Your task to perform on an android device: Show me productivity apps on the Play Store Image 0: 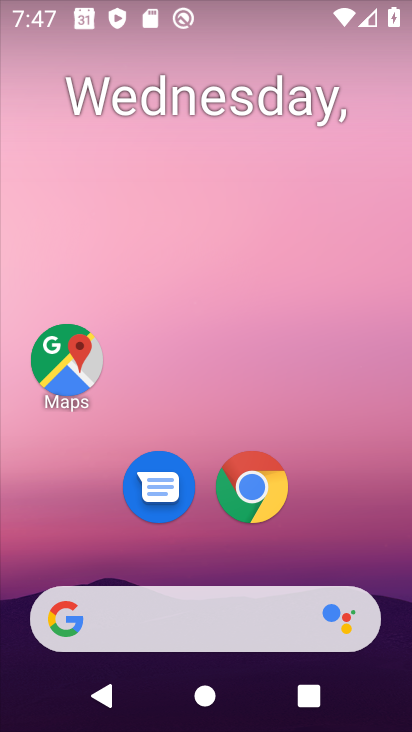
Step 0: drag from (360, 585) to (342, 32)
Your task to perform on an android device: Show me productivity apps on the Play Store Image 1: 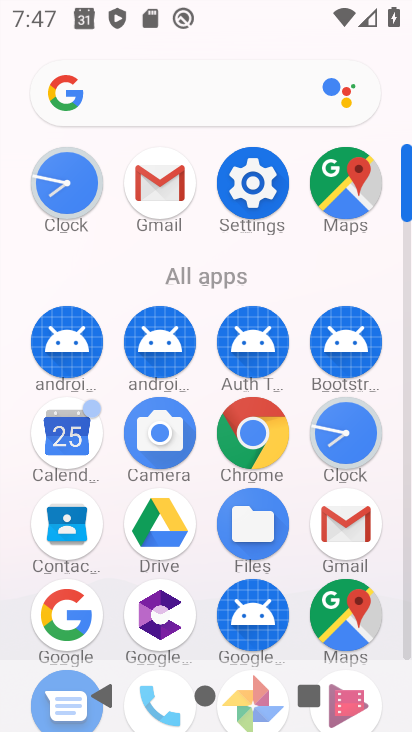
Step 1: drag from (402, 490) to (399, 456)
Your task to perform on an android device: Show me productivity apps on the Play Store Image 2: 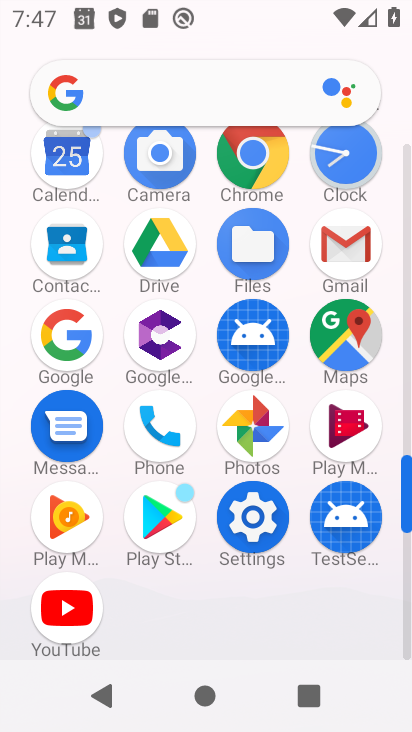
Step 2: click (158, 520)
Your task to perform on an android device: Show me productivity apps on the Play Store Image 3: 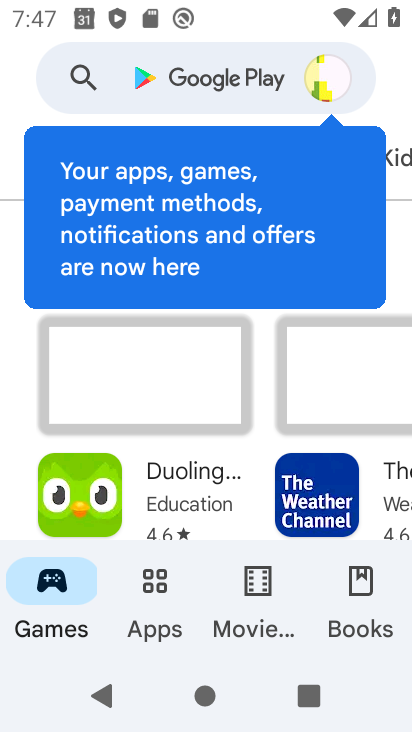
Step 3: click (157, 600)
Your task to perform on an android device: Show me productivity apps on the Play Store Image 4: 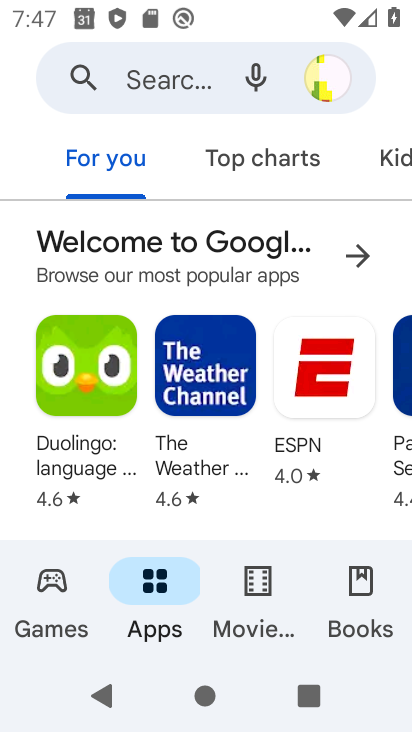
Step 4: drag from (293, 152) to (5, 200)
Your task to perform on an android device: Show me productivity apps on the Play Store Image 5: 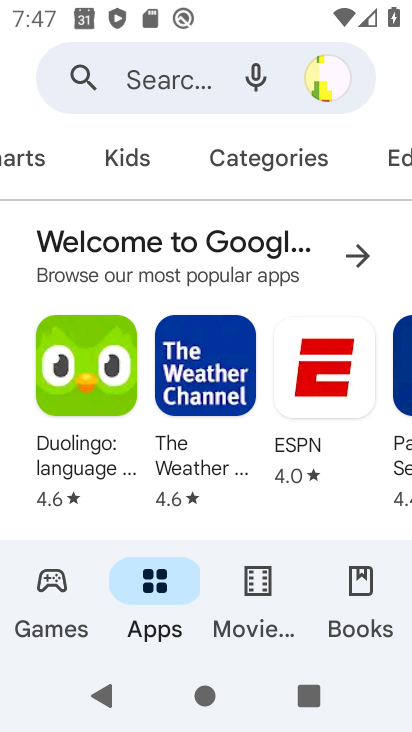
Step 5: click (256, 166)
Your task to perform on an android device: Show me productivity apps on the Play Store Image 6: 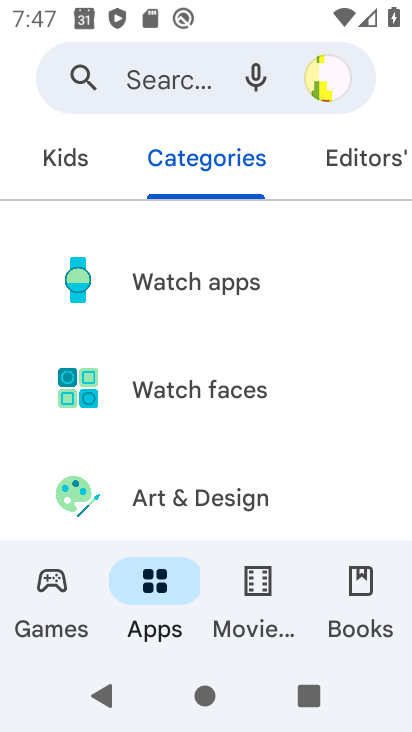
Step 6: drag from (285, 481) to (272, 9)
Your task to perform on an android device: Show me productivity apps on the Play Store Image 7: 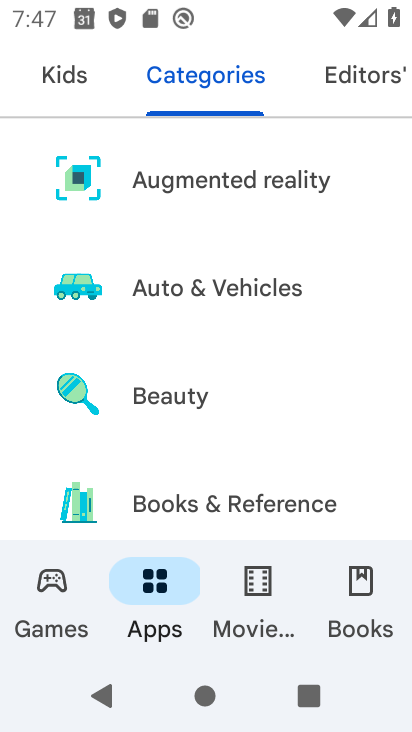
Step 7: drag from (307, 382) to (266, 10)
Your task to perform on an android device: Show me productivity apps on the Play Store Image 8: 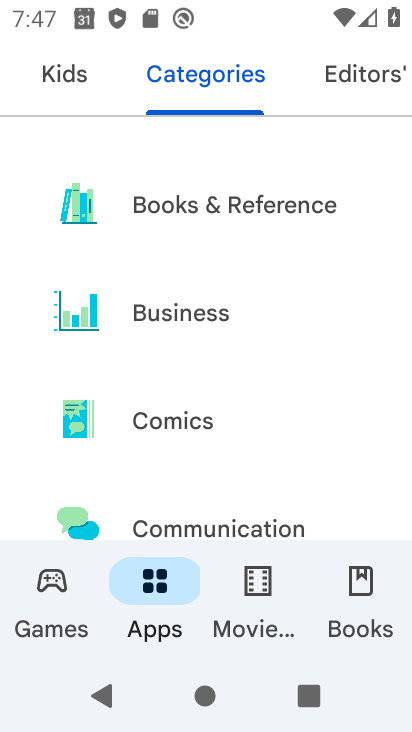
Step 8: drag from (268, 387) to (235, 11)
Your task to perform on an android device: Show me productivity apps on the Play Store Image 9: 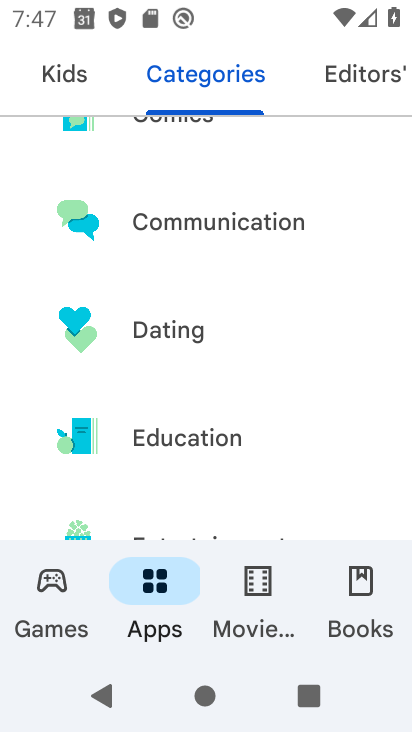
Step 9: drag from (301, 400) to (236, 1)
Your task to perform on an android device: Show me productivity apps on the Play Store Image 10: 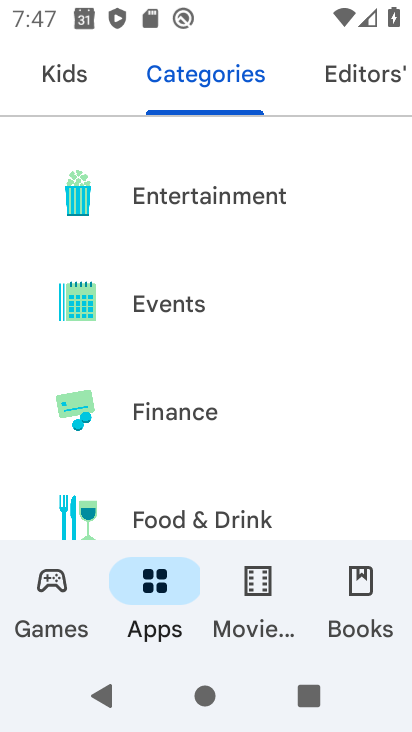
Step 10: drag from (235, 407) to (237, 34)
Your task to perform on an android device: Show me productivity apps on the Play Store Image 11: 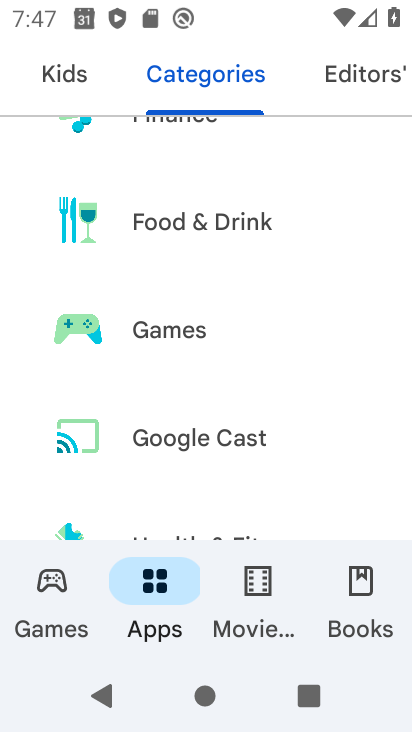
Step 11: drag from (269, 439) to (225, 38)
Your task to perform on an android device: Show me productivity apps on the Play Store Image 12: 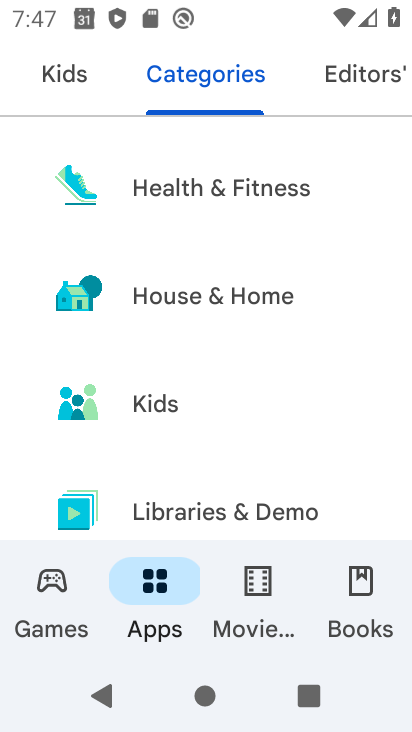
Step 12: drag from (265, 457) to (212, 107)
Your task to perform on an android device: Show me productivity apps on the Play Store Image 13: 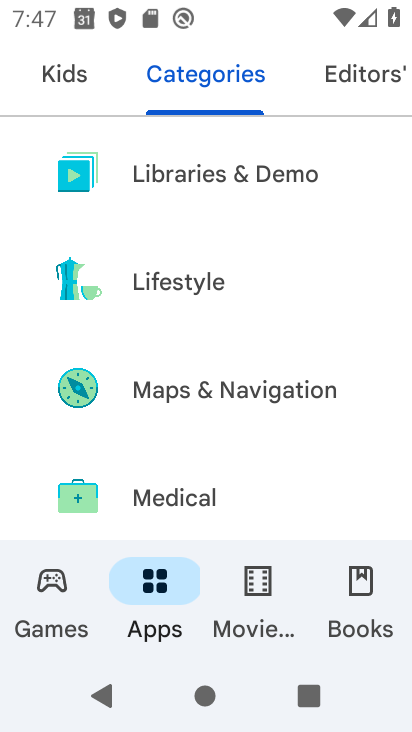
Step 13: drag from (264, 432) to (209, 105)
Your task to perform on an android device: Show me productivity apps on the Play Store Image 14: 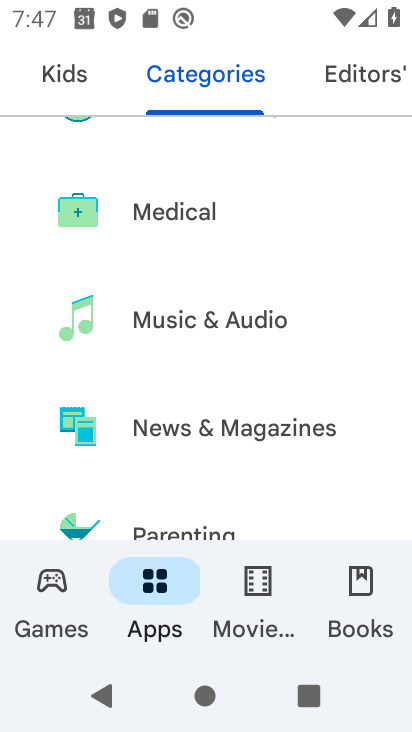
Step 14: drag from (268, 459) to (214, 143)
Your task to perform on an android device: Show me productivity apps on the Play Store Image 15: 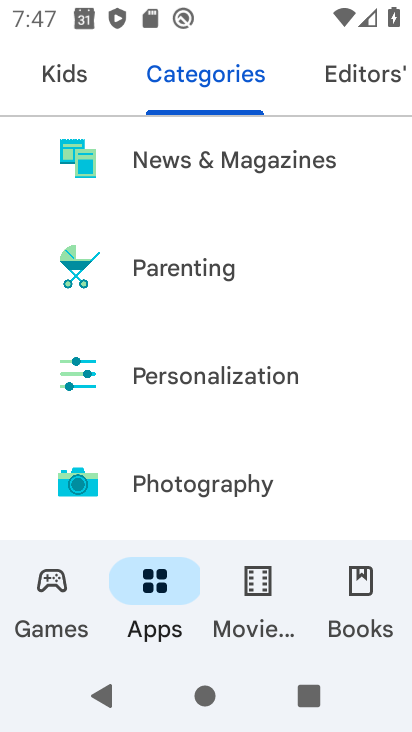
Step 15: drag from (250, 390) to (218, 121)
Your task to perform on an android device: Show me productivity apps on the Play Store Image 16: 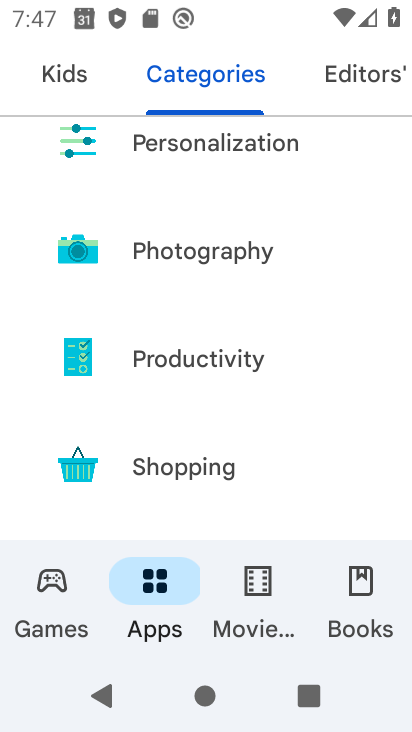
Step 16: click (200, 363)
Your task to perform on an android device: Show me productivity apps on the Play Store Image 17: 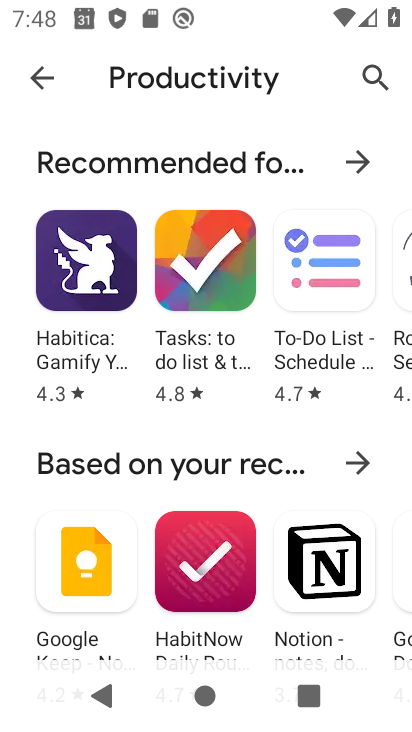
Step 17: task complete